Your task to perform on an android device: Open Reddit.com Image 0: 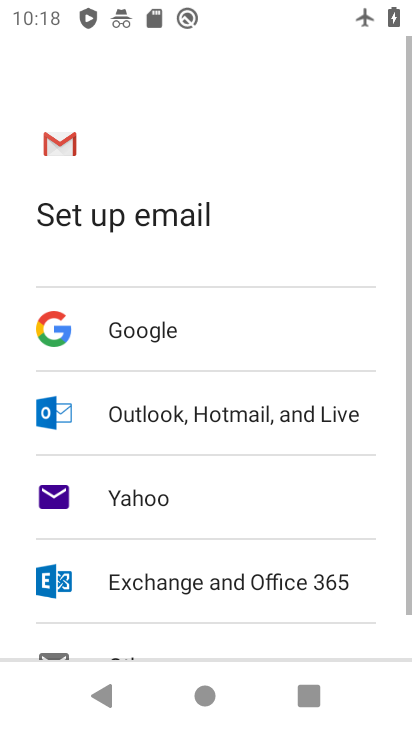
Step 0: press home button
Your task to perform on an android device: Open Reddit.com Image 1: 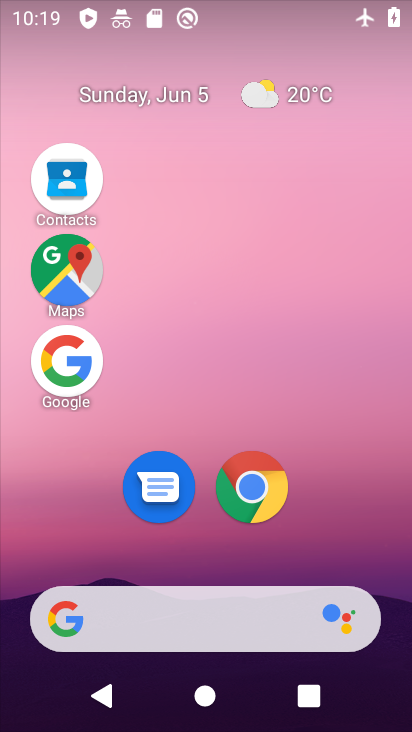
Step 1: drag from (182, 590) to (183, 62)
Your task to perform on an android device: Open Reddit.com Image 2: 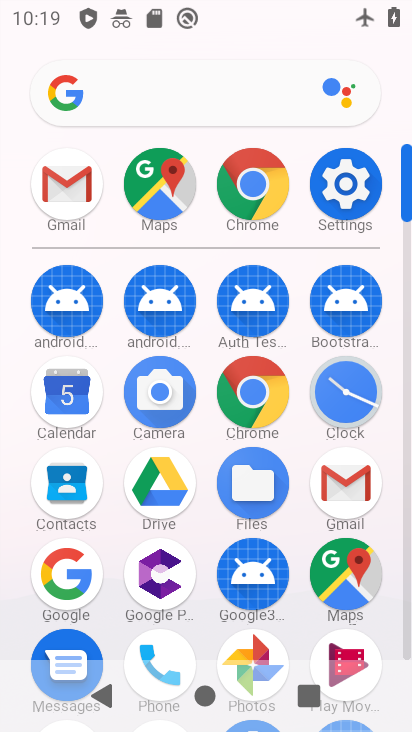
Step 2: click (271, 195)
Your task to perform on an android device: Open Reddit.com Image 3: 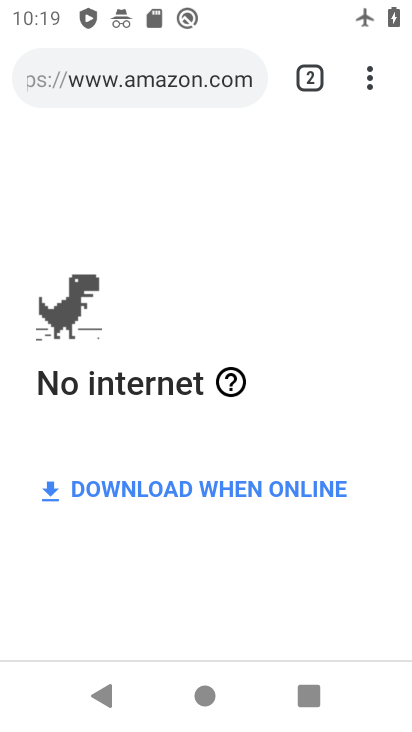
Step 3: click (162, 74)
Your task to perform on an android device: Open Reddit.com Image 4: 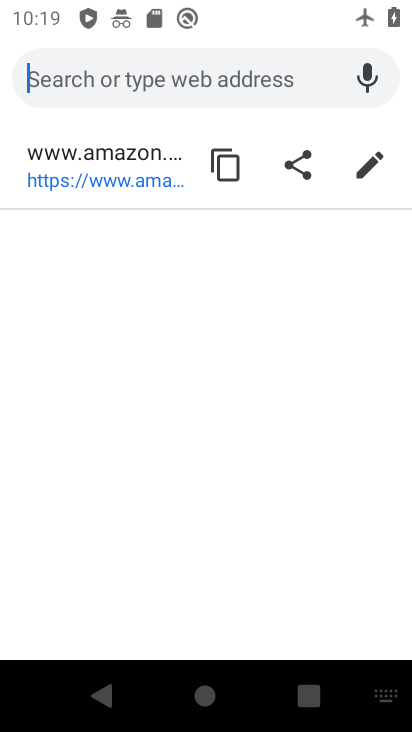
Step 4: type "reddit"
Your task to perform on an android device: Open Reddit.com Image 5: 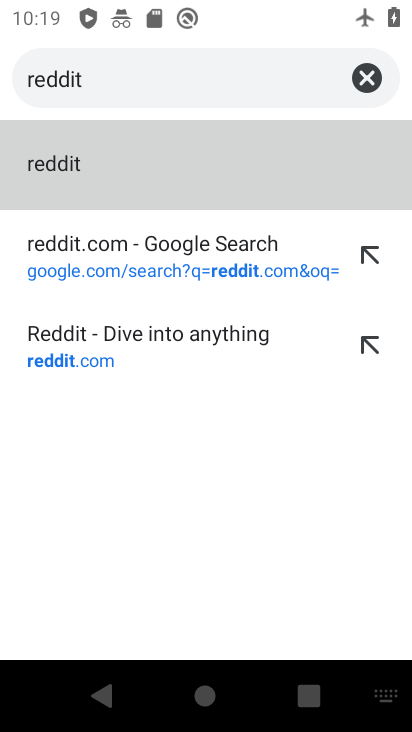
Step 5: click (174, 341)
Your task to perform on an android device: Open Reddit.com Image 6: 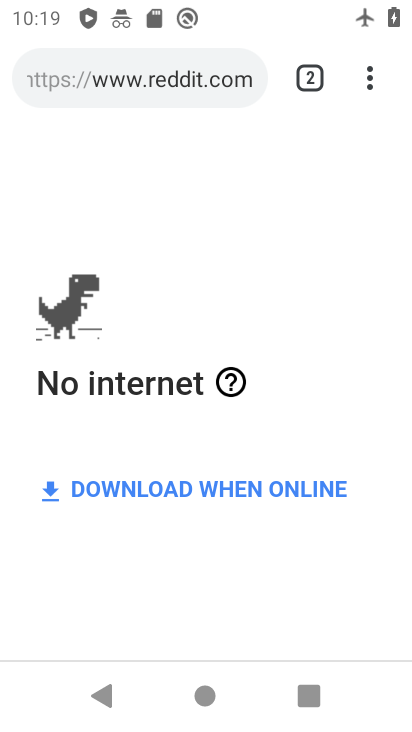
Step 6: task complete